Your task to perform on an android device: Show me recent news Image 0: 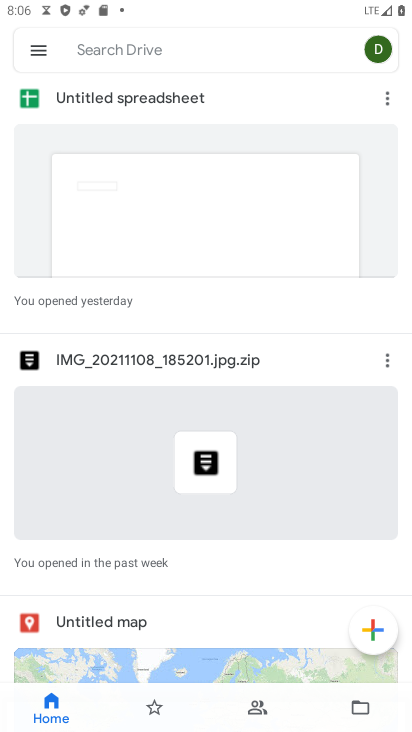
Step 0: press home button
Your task to perform on an android device: Show me recent news Image 1: 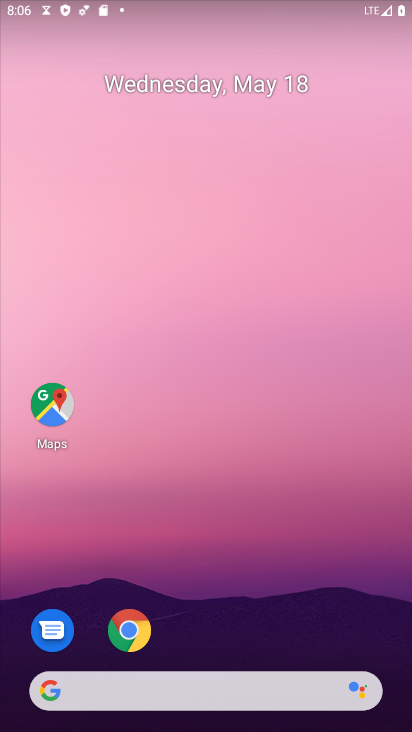
Step 1: drag from (295, 565) to (294, 158)
Your task to perform on an android device: Show me recent news Image 2: 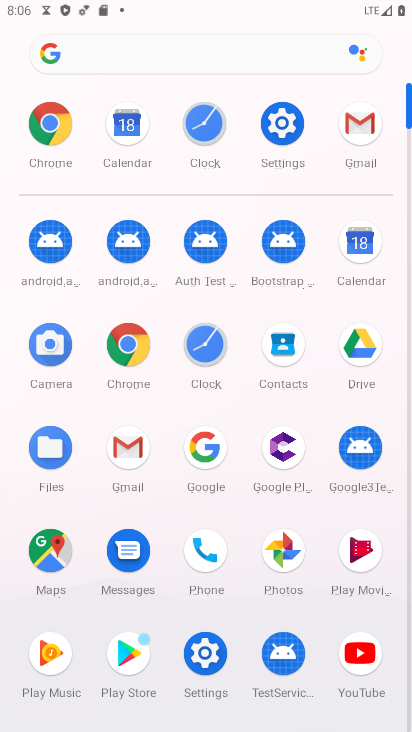
Step 2: click (118, 353)
Your task to perform on an android device: Show me recent news Image 3: 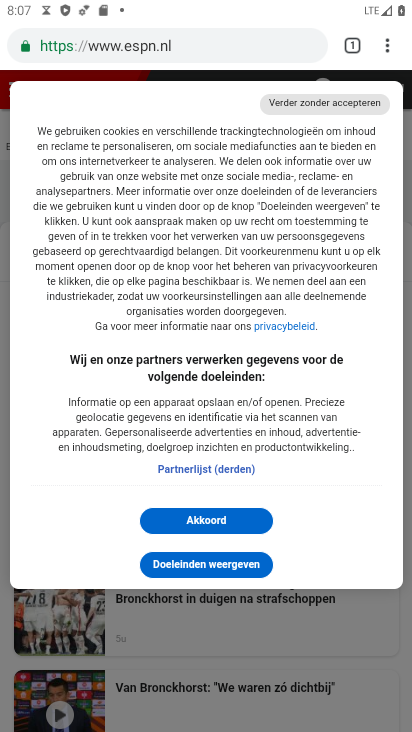
Step 3: task complete